Your task to perform on an android device: Search for a new foundation (skincare) product Image 0: 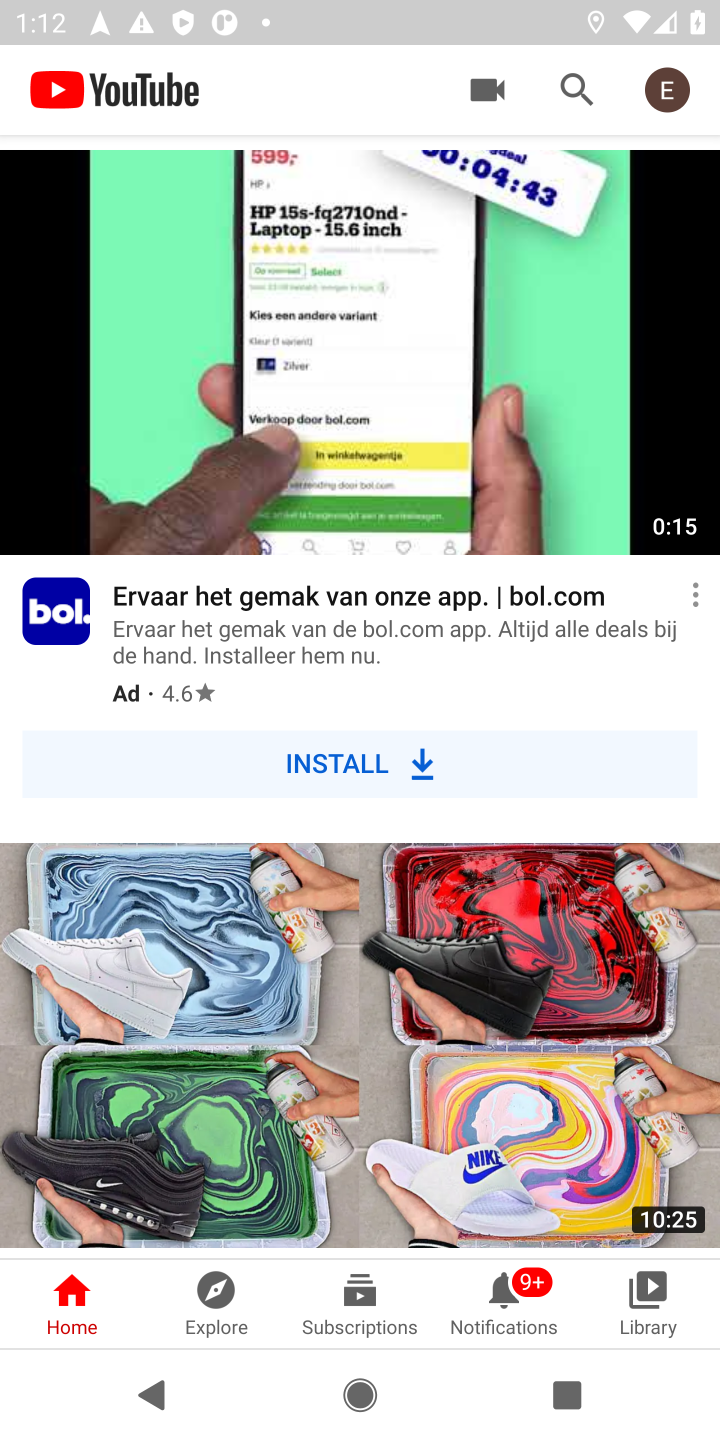
Step 0: press home button
Your task to perform on an android device: Search for a new foundation (skincare) product Image 1: 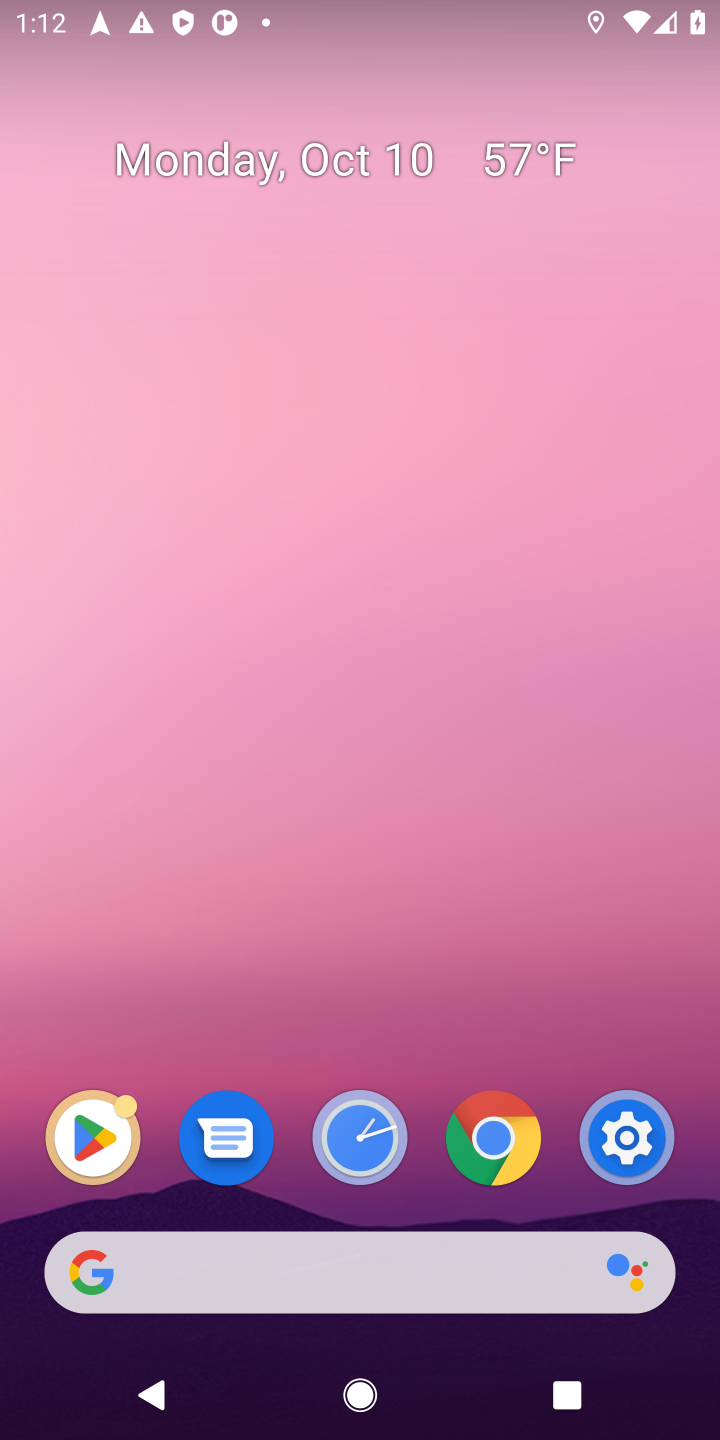
Step 1: click (213, 1288)
Your task to perform on an android device: Search for a new foundation (skincare) product Image 2: 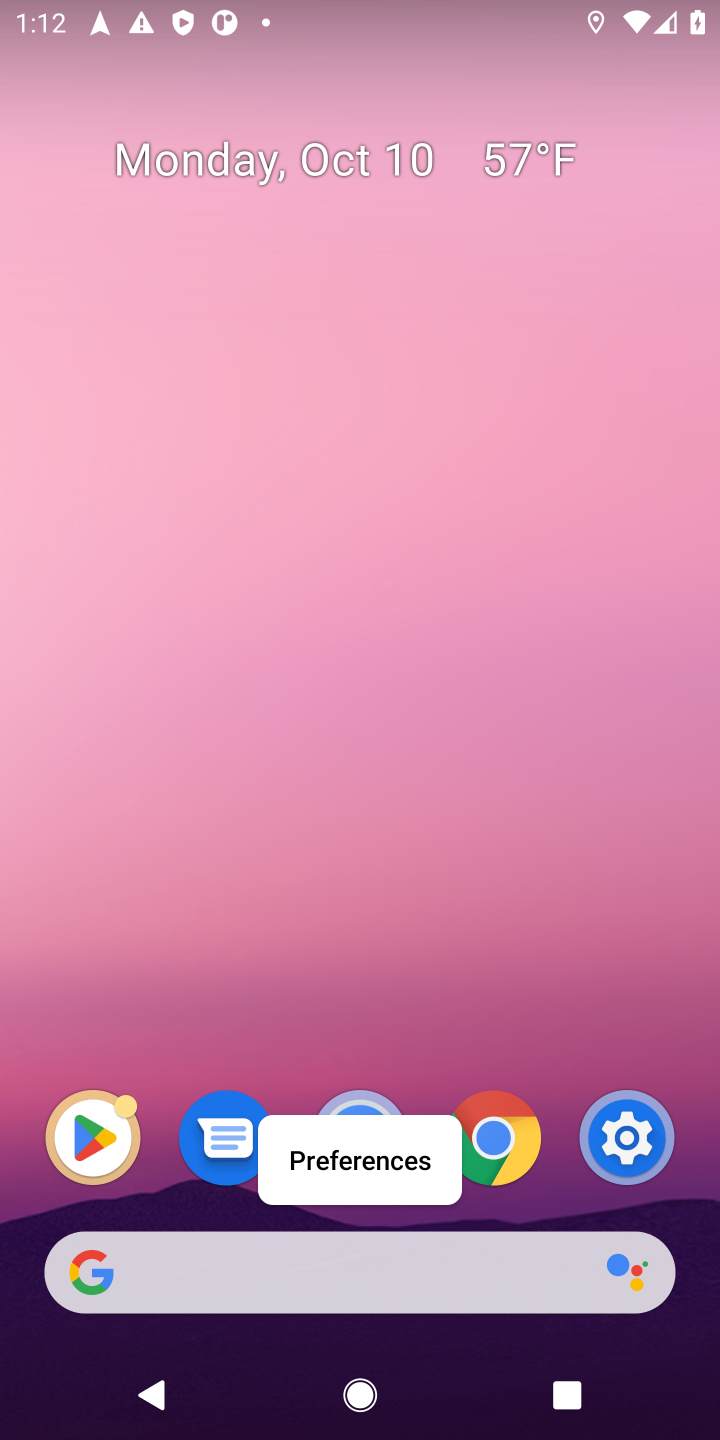
Step 2: click (248, 1263)
Your task to perform on an android device: Search for a new foundation (skincare) product Image 3: 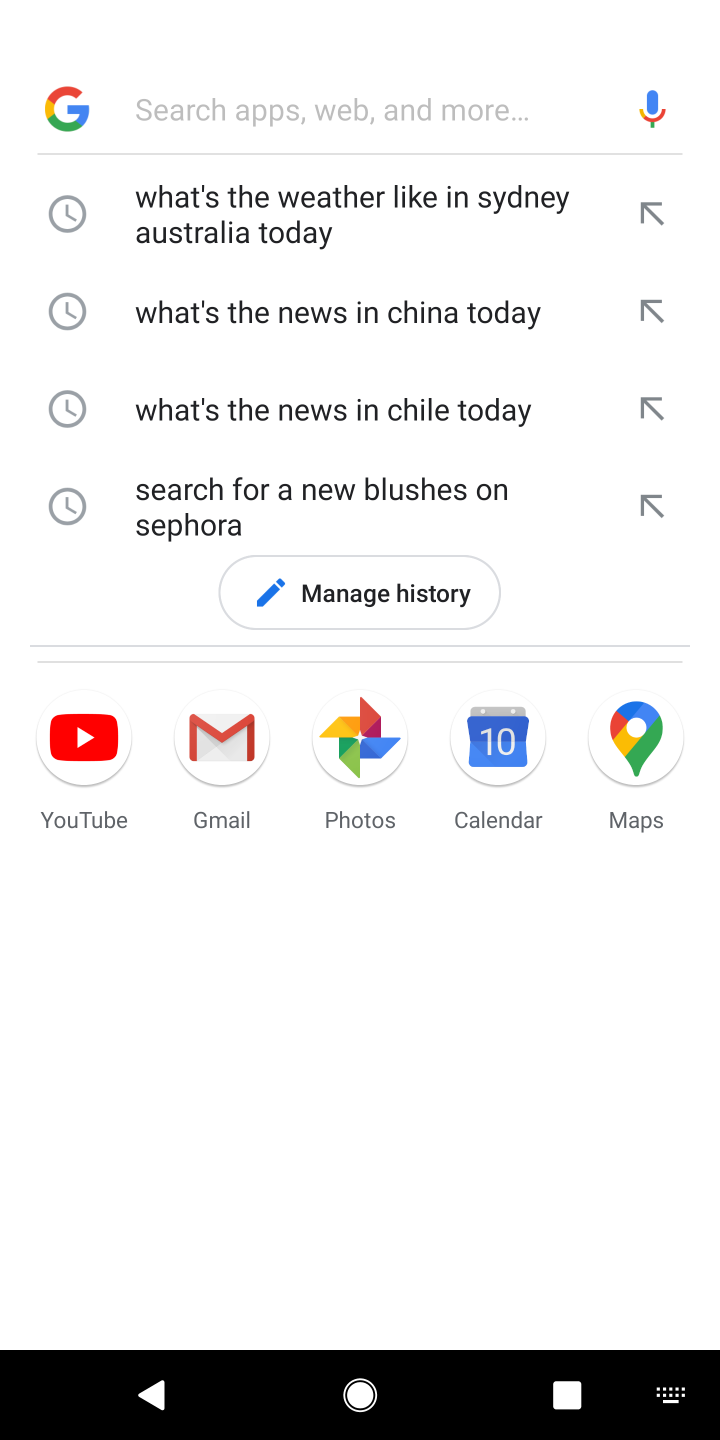
Step 3: type "new foundation product"
Your task to perform on an android device: Search for a new foundation (skincare) product Image 4: 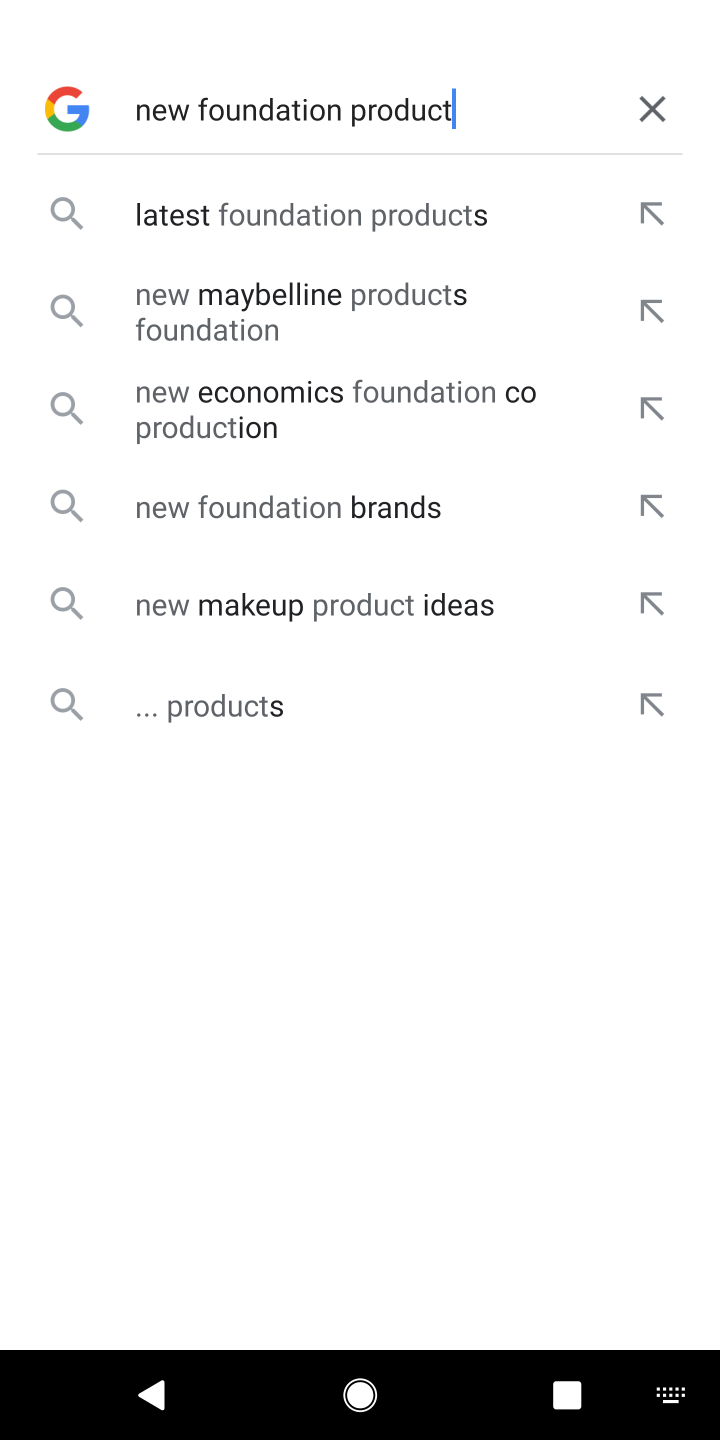
Step 4: click (399, 212)
Your task to perform on an android device: Search for a new foundation (skincare) product Image 5: 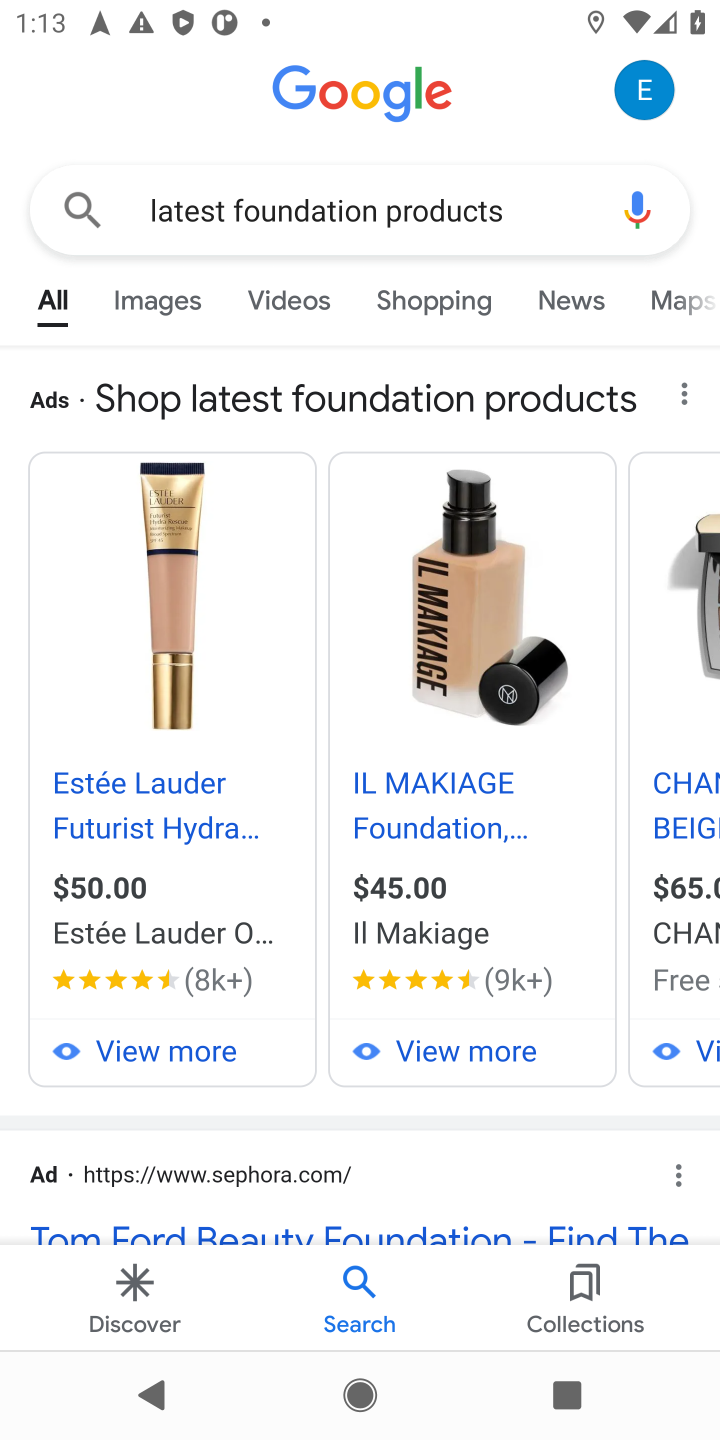
Step 5: task complete